Your task to perform on an android device: check out phone information Image 0: 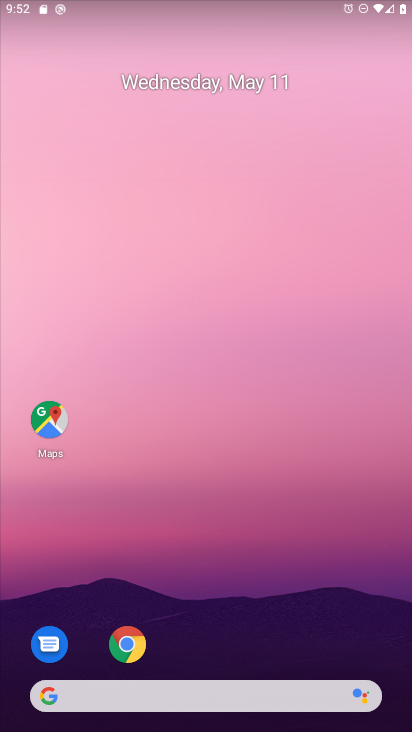
Step 0: drag from (202, 556) to (99, 212)
Your task to perform on an android device: check out phone information Image 1: 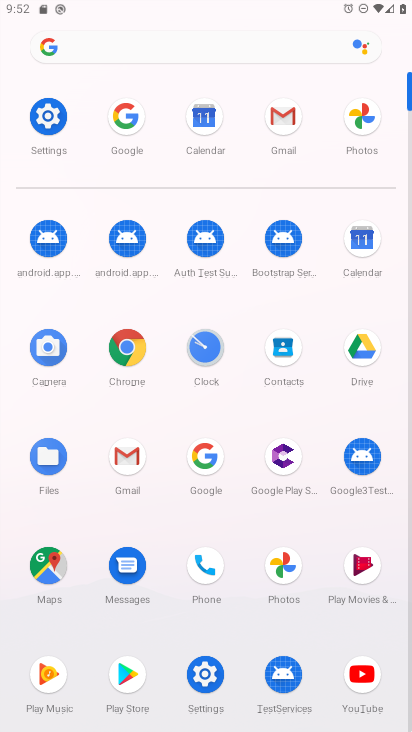
Step 1: click (200, 674)
Your task to perform on an android device: check out phone information Image 2: 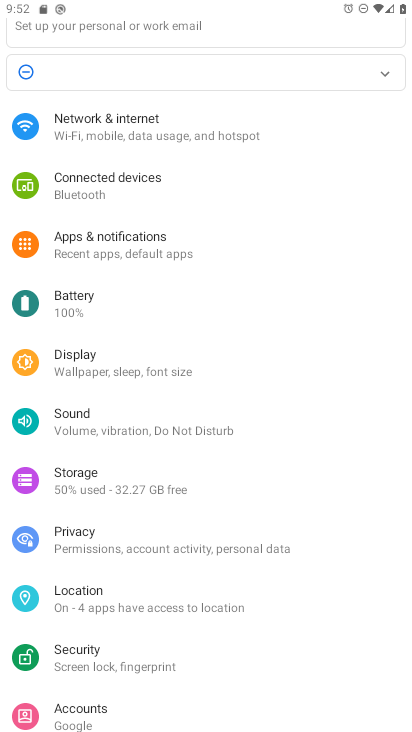
Step 2: drag from (225, 637) to (186, 398)
Your task to perform on an android device: check out phone information Image 3: 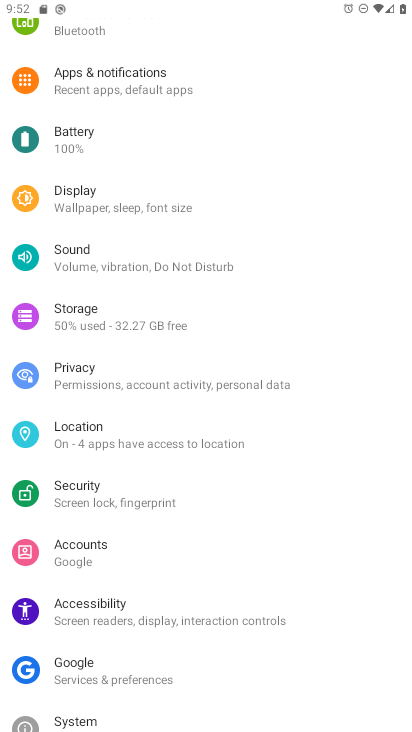
Step 3: drag from (191, 626) to (175, 355)
Your task to perform on an android device: check out phone information Image 4: 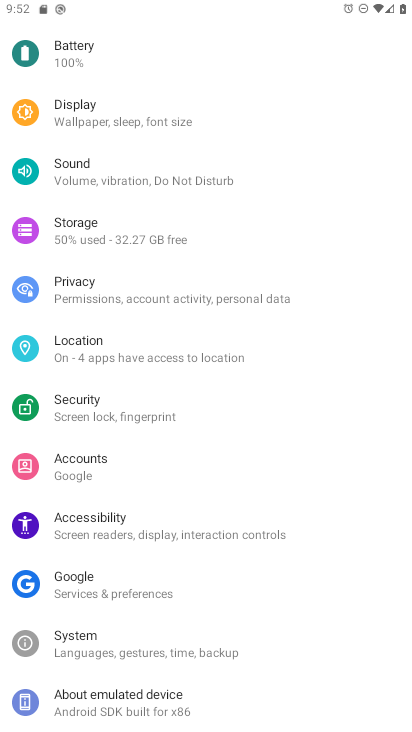
Step 4: click (71, 639)
Your task to perform on an android device: check out phone information Image 5: 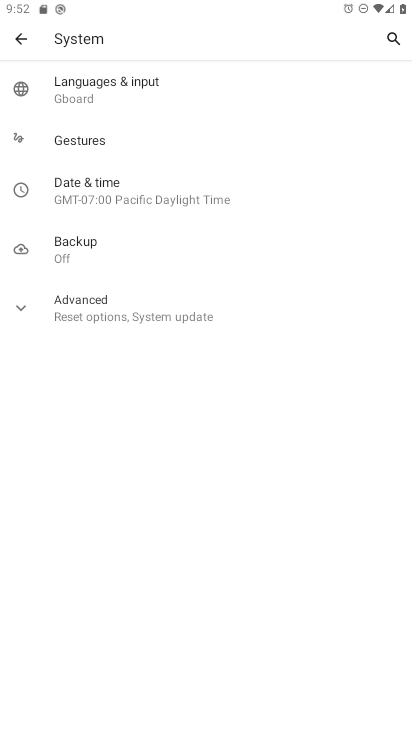
Step 5: task complete